Your task to perform on an android device: toggle notifications settings in the gmail app Image 0: 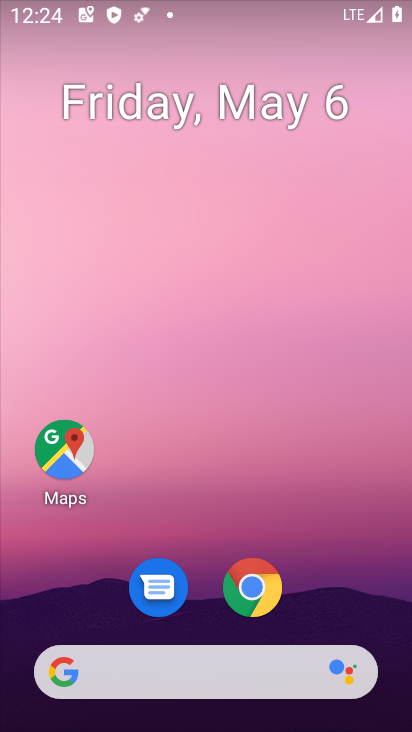
Step 0: drag from (169, 641) to (310, 125)
Your task to perform on an android device: toggle notifications settings in the gmail app Image 1: 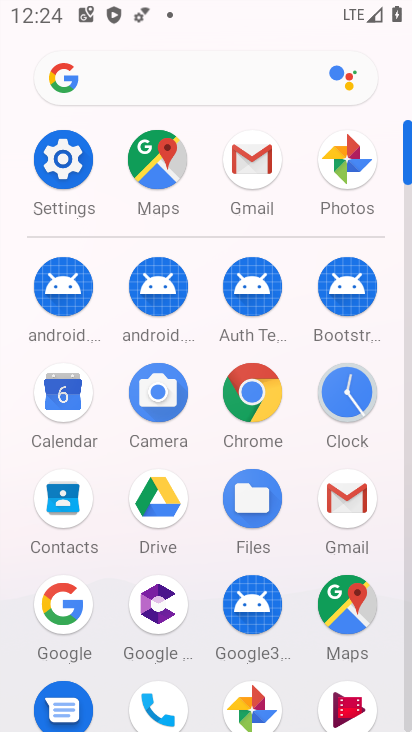
Step 1: click (243, 151)
Your task to perform on an android device: toggle notifications settings in the gmail app Image 2: 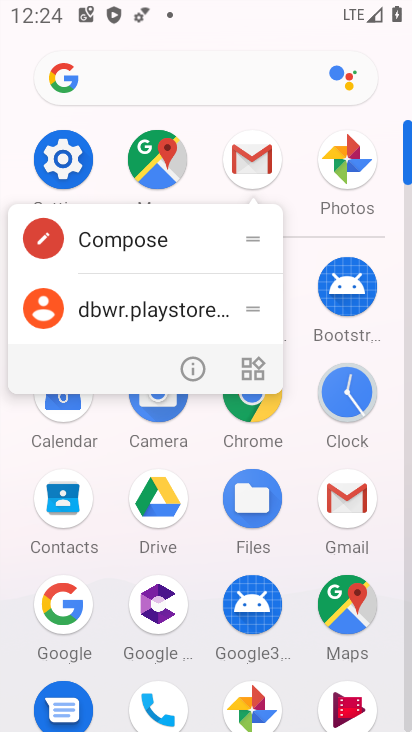
Step 2: click (190, 374)
Your task to perform on an android device: toggle notifications settings in the gmail app Image 3: 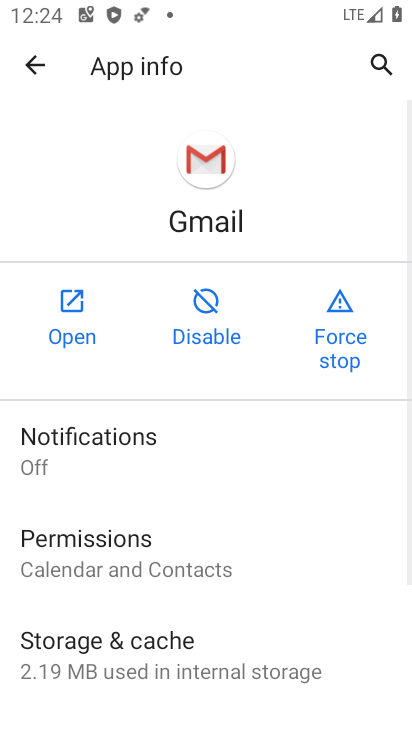
Step 3: click (145, 450)
Your task to perform on an android device: toggle notifications settings in the gmail app Image 4: 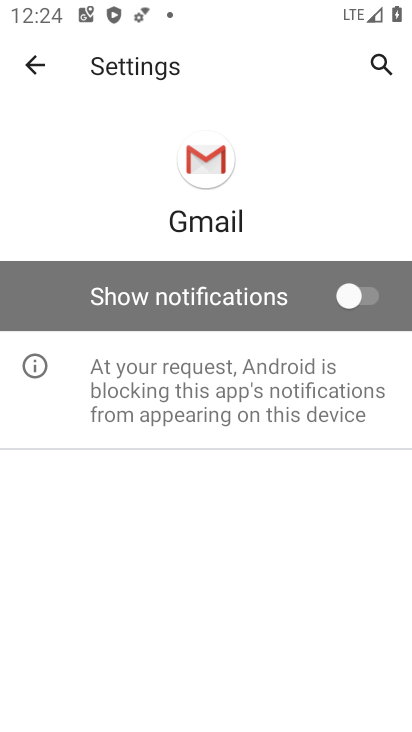
Step 4: click (339, 296)
Your task to perform on an android device: toggle notifications settings in the gmail app Image 5: 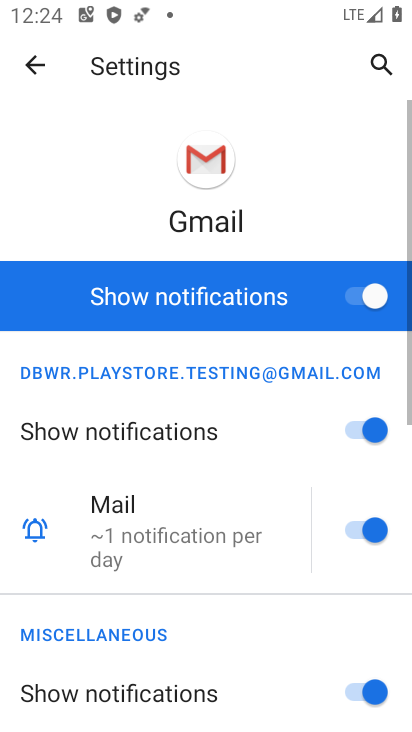
Step 5: task complete